Your task to perform on an android device: toggle improve location accuracy Image 0: 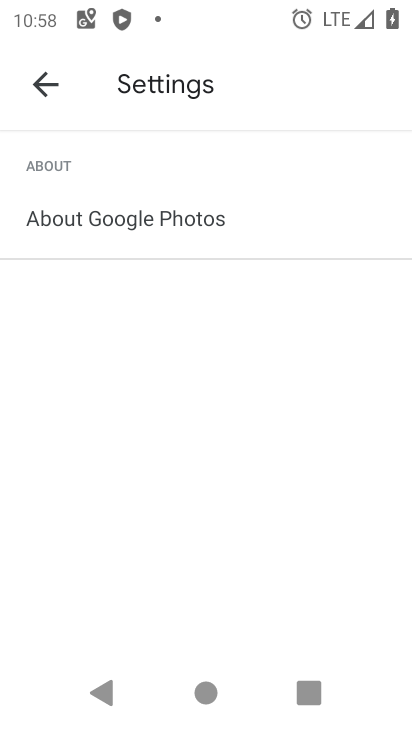
Step 0: press home button
Your task to perform on an android device: toggle improve location accuracy Image 1: 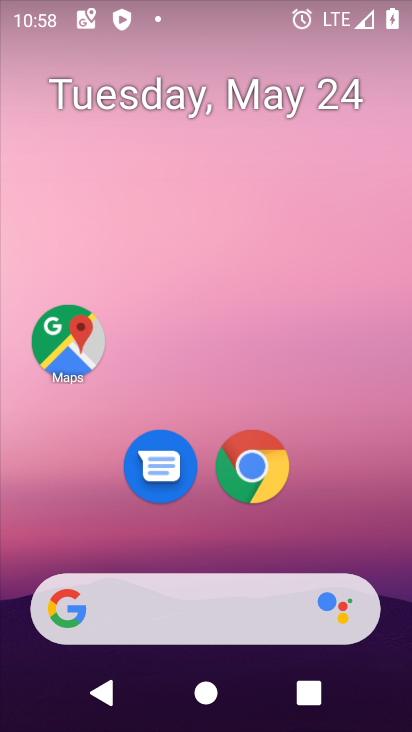
Step 1: drag from (373, 523) to (363, 213)
Your task to perform on an android device: toggle improve location accuracy Image 2: 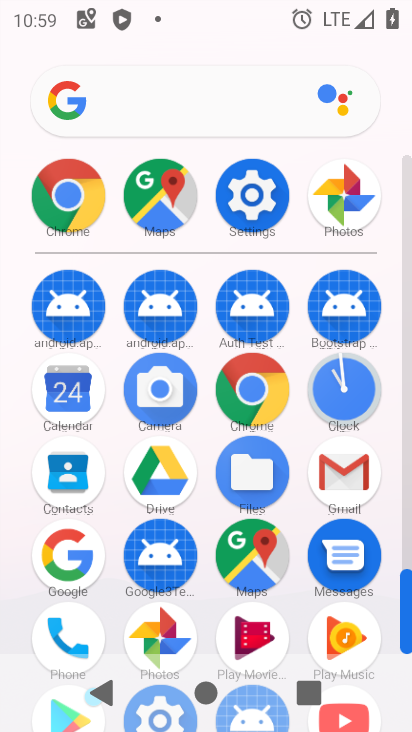
Step 2: click (263, 209)
Your task to perform on an android device: toggle improve location accuracy Image 3: 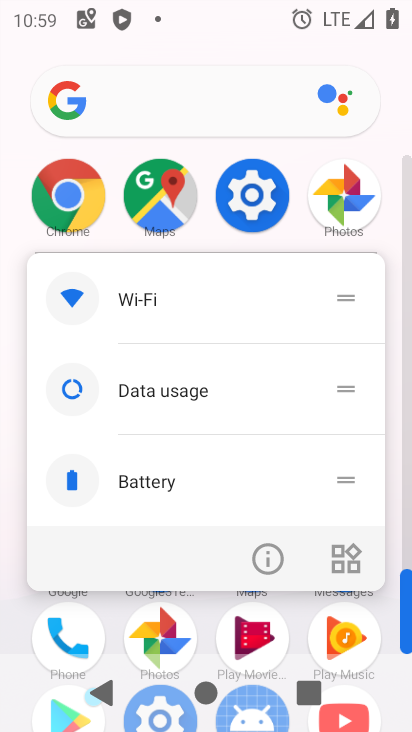
Step 3: click (263, 209)
Your task to perform on an android device: toggle improve location accuracy Image 4: 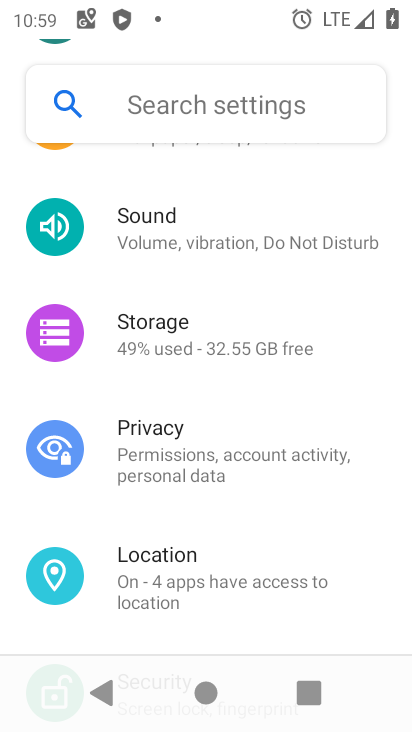
Step 4: drag from (357, 284) to (352, 393)
Your task to perform on an android device: toggle improve location accuracy Image 5: 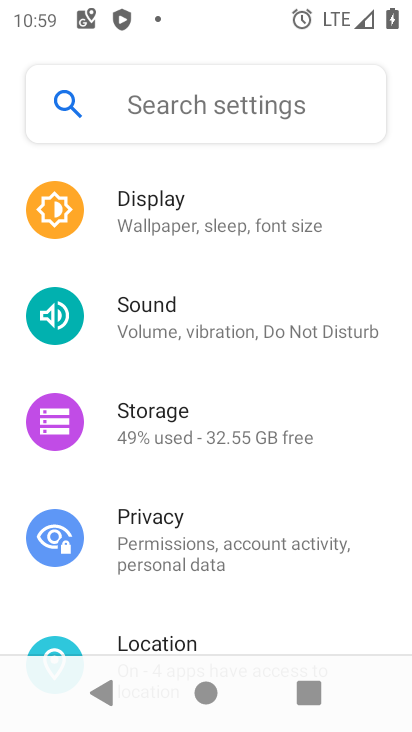
Step 5: drag from (355, 207) to (363, 414)
Your task to perform on an android device: toggle improve location accuracy Image 6: 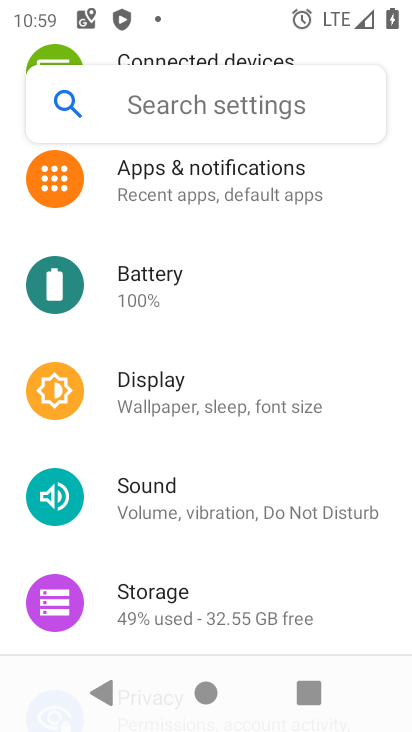
Step 6: drag from (355, 212) to (352, 335)
Your task to perform on an android device: toggle improve location accuracy Image 7: 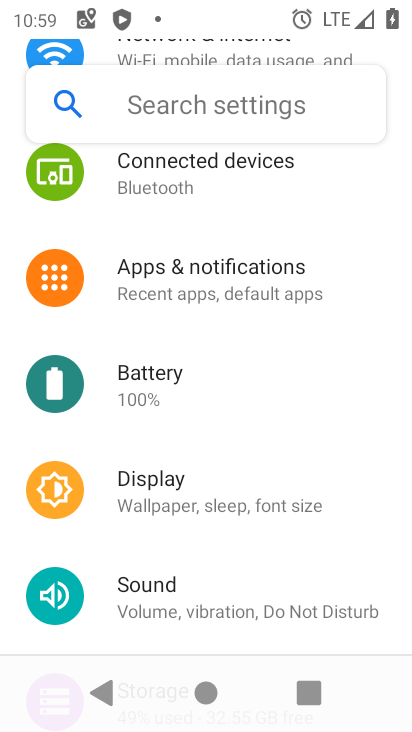
Step 7: drag from (348, 189) to (349, 295)
Your task to perform on an android device: toggle improve location accuracy Image 8: 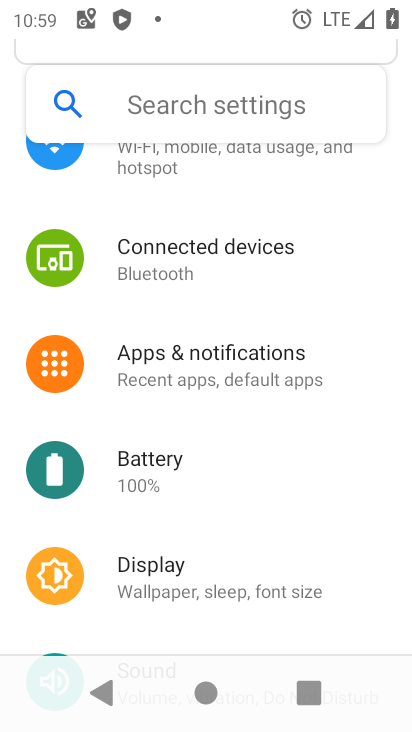
Step 8: drag from (338, 180) to (350, 325)
Your task to perform on an android device: toggle improve location accuracy Image 9: 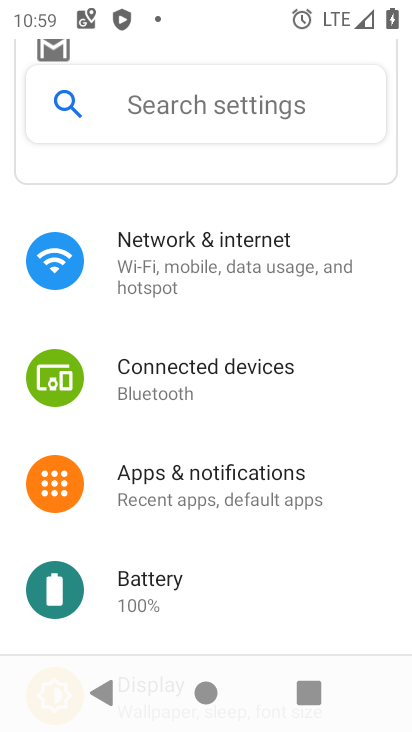
Step 9: drag from (348, 380) to (348, 255)
Your task to perform on an android device: toggle improve location accuracy Image 10: 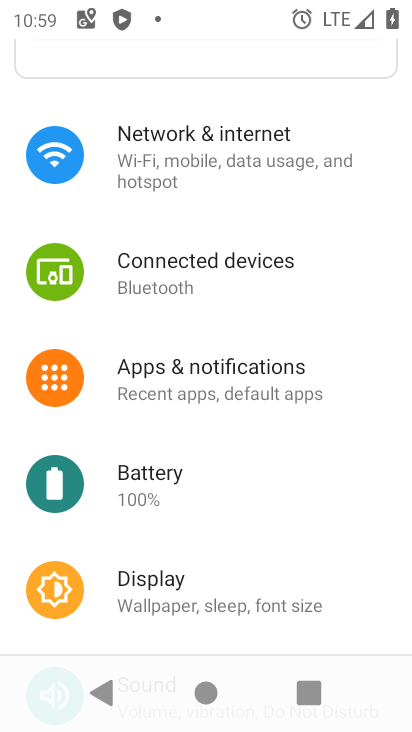
Step 10: drag from (343, 410) to (370, 291)
Your task to perform on an android device: toggle improve location accuracy Image 11: 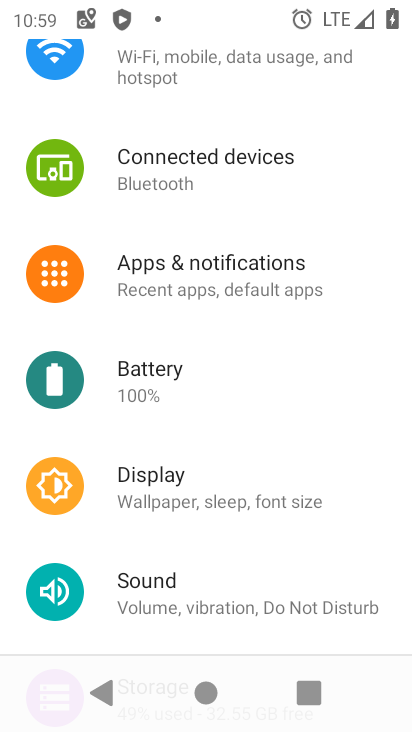
Step 11: drag from (372, 471) to (375, 333)
Your task to perform on an android device: toggle improve location accuracy Image 12: 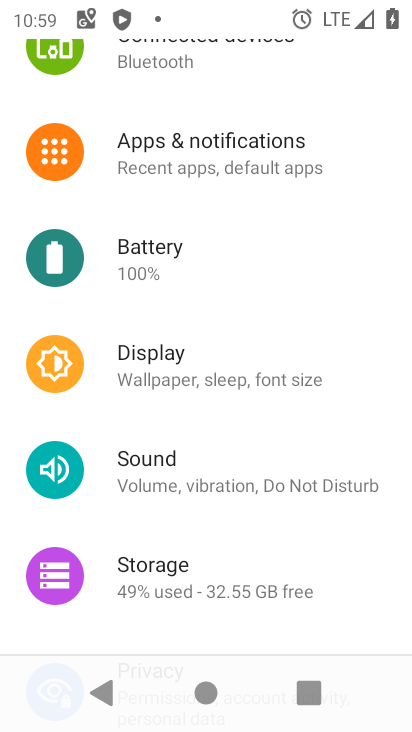
Step 12: drag from (343, 544) to (349, 450)
Your task to perform on an android device: toggle improve location accuracy Image 13: 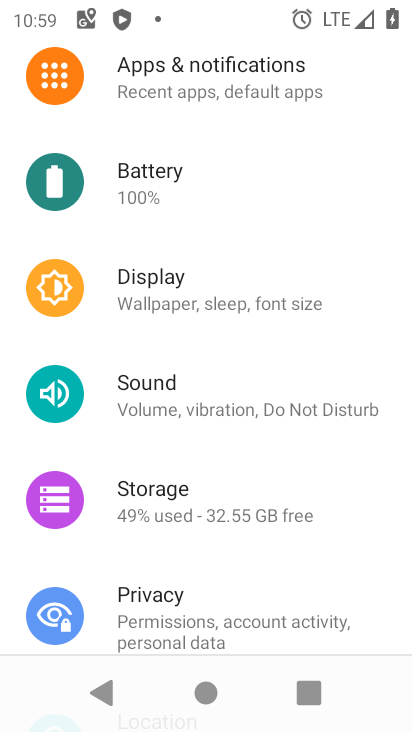
Step 13: drag from (332, 544) to (343, 381)
Your task to perform on an android device: toggle improve location accuracy Image 14: 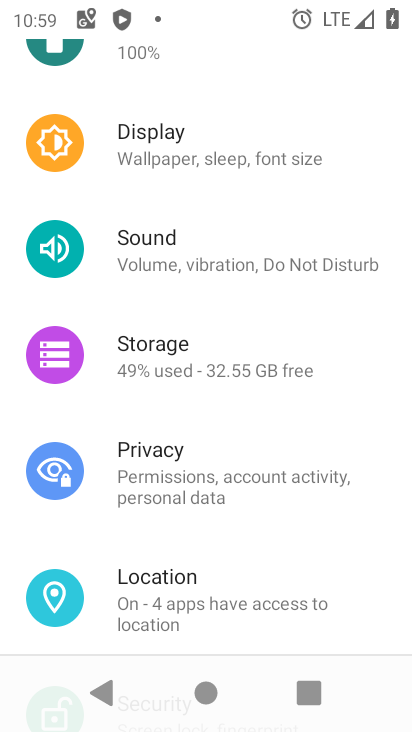
Step 14: drag from (325, 560) to (333, 389)
Your task to perform on an android device: toggle improve location accuracy Image 15: 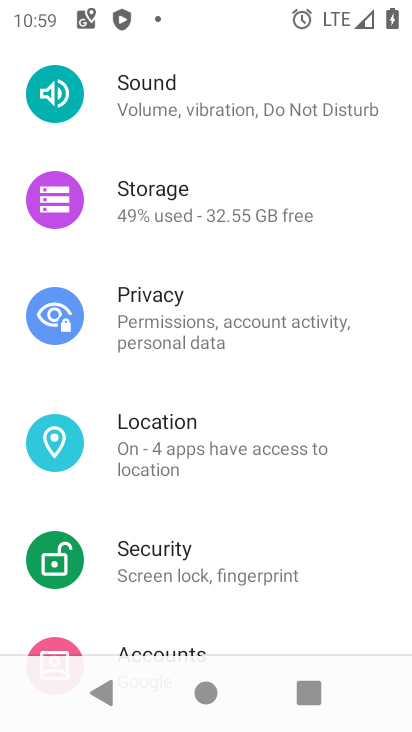
Step 15: drag from (353, 557) to (347, 463)
Your task to perform on an android device: toggle improve location accuracy Image 16: 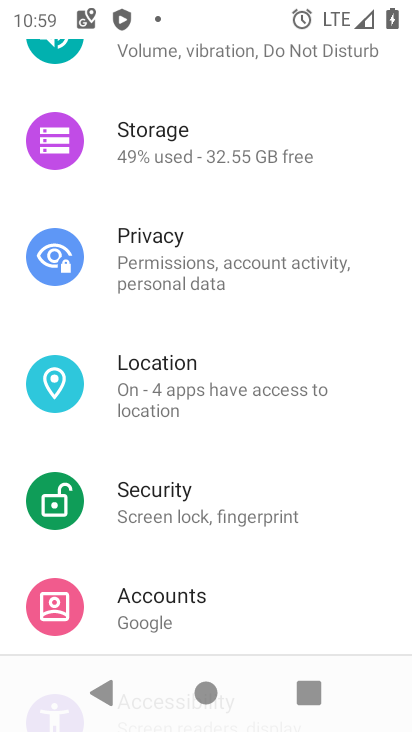
Step 16: click (194, 384)
Your task to perform on an android device: toggle improve location accuracy Image 17: 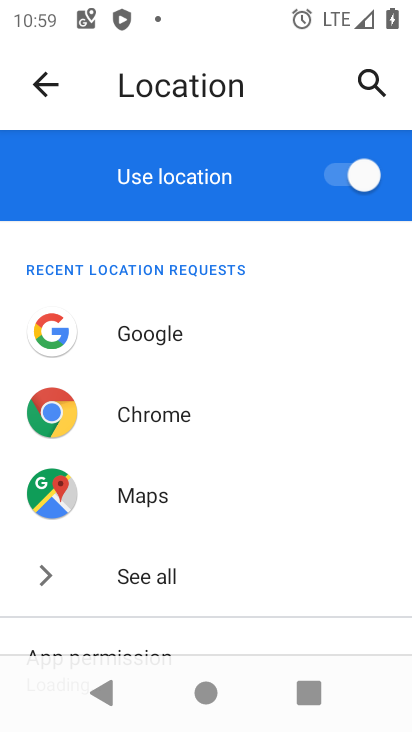
Step 17: drag from (233, 586) to (237, 443)
Your task to perform on an android device: toggle improve location accuracy Image 18: 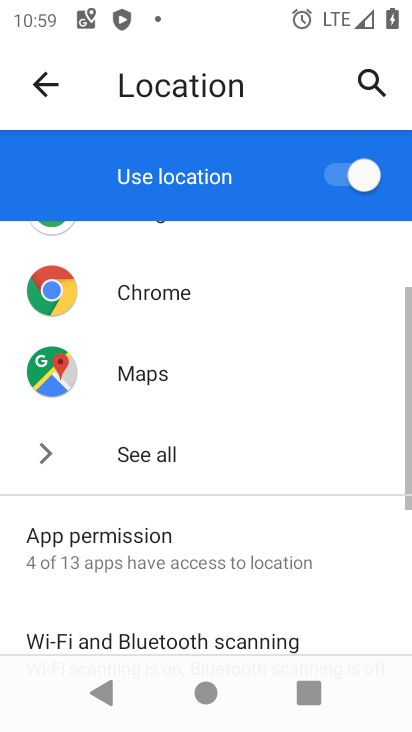
Step 18: drag from (277, 590) to (282, 438)
Your task to perform on an android device: toggle improve location accuracy Image 19: 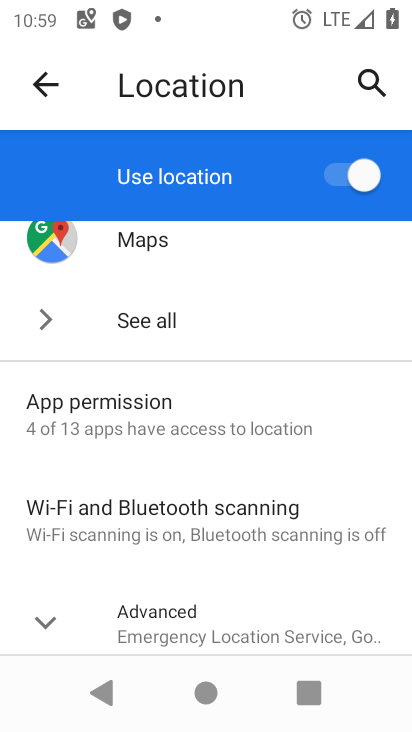
Step 19: drag from (290, 584) to (315, 413)
Your task to perform on an android device: toggle improve location accuracy Image 20: 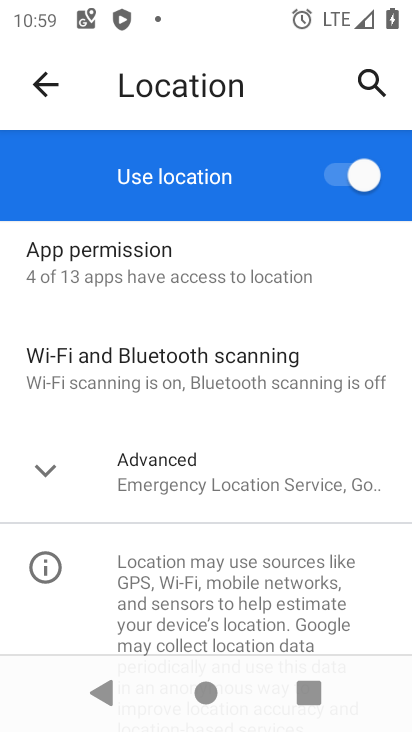
Step 20: click (292, 488)
Your task to perform on an android device: toggle improve location accuracy Image 21: 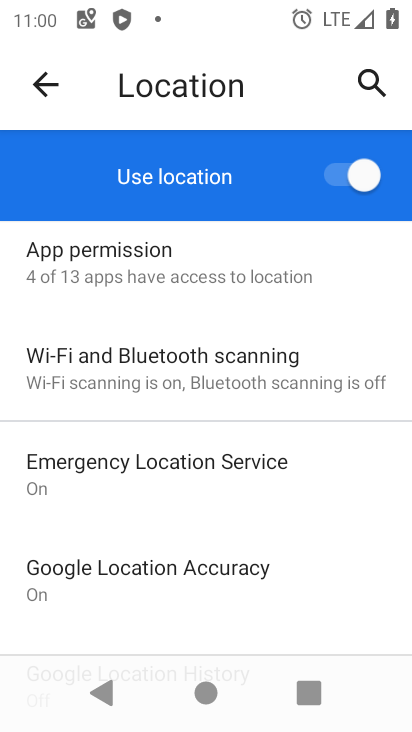
Step 21: drag from (320, 572) to (343, 432)
Your task to perform on an android device: toggle improve location accuracy Image 22: 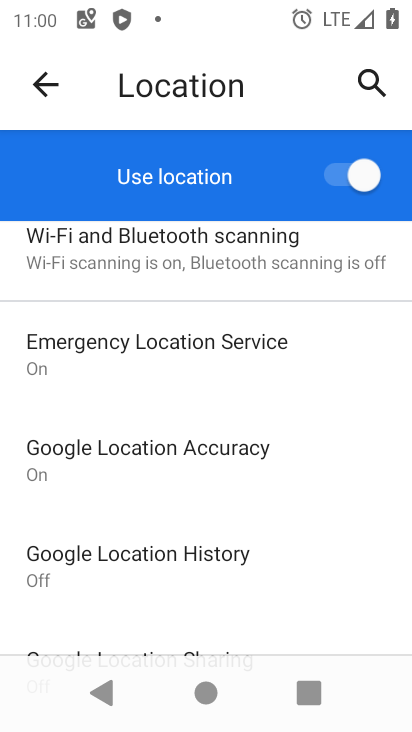
Step 22: click (227, 463)
Your task to perform on an android device: toggle improve location accuracy Image 23: 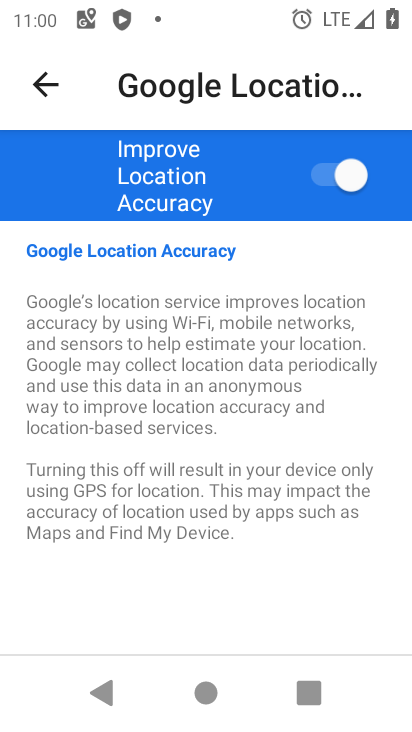
Step 23: task complete